Your task to perform on an android device: When is my next appointment? Image 0: 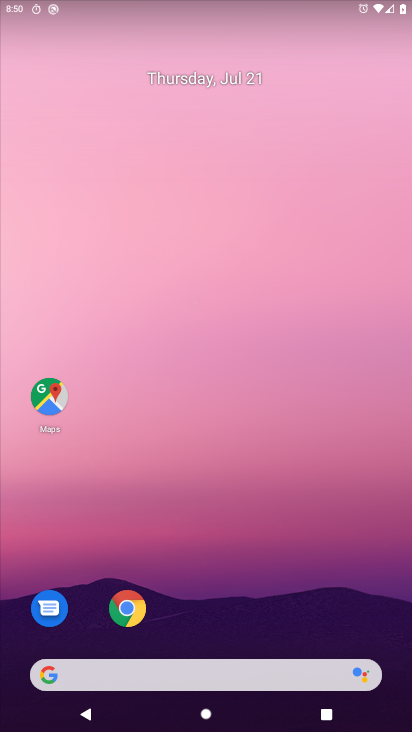
Step 0: drag from (27, 668) to (249, 157)
Your task to perform on an android device: When is my next appointment? Image 1: 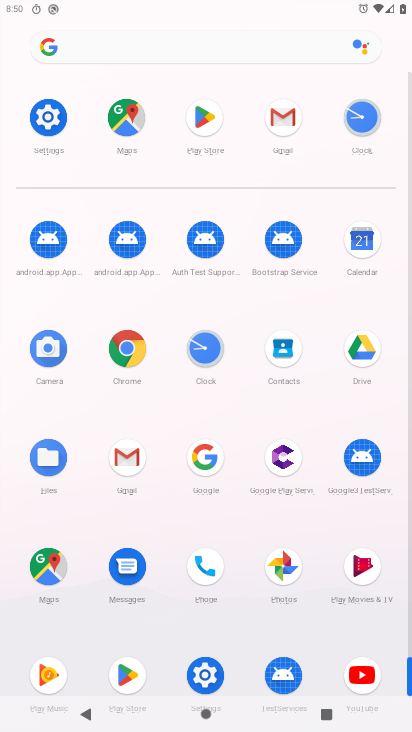
Step 1: click (356, 227)
Your task to perform on an android device: When is my next appointment? Image 2: 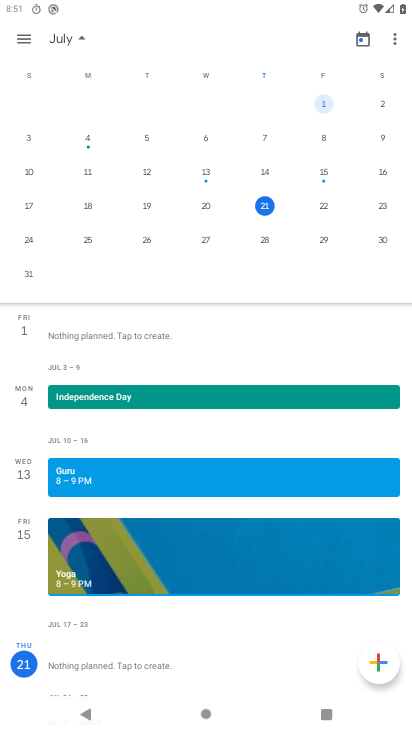
Step 2: task complete